Your task to perform on an android device: What is the news today? Image 0: 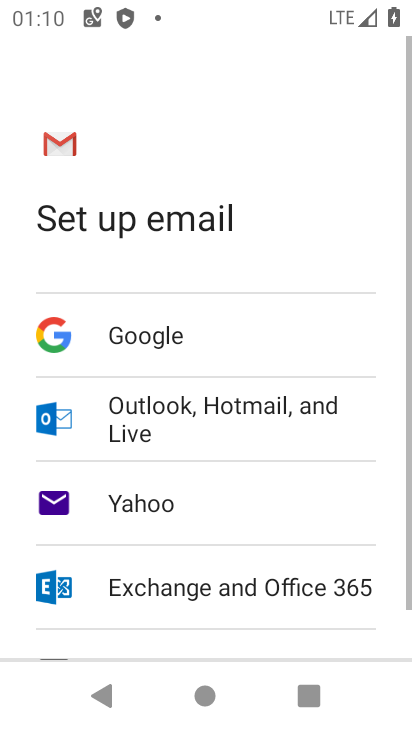
Step 0: press home button
Your task to perform on an android device: What is the news today? Image 1: 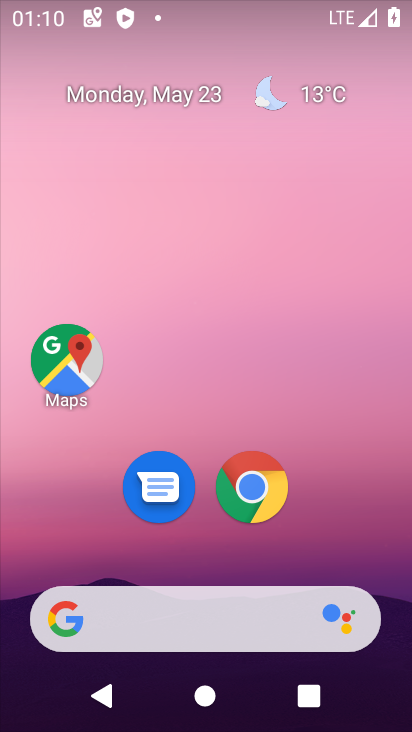
Step 1: task complete